Your task to perform on an android device: Go to accessibility settings Image 0: 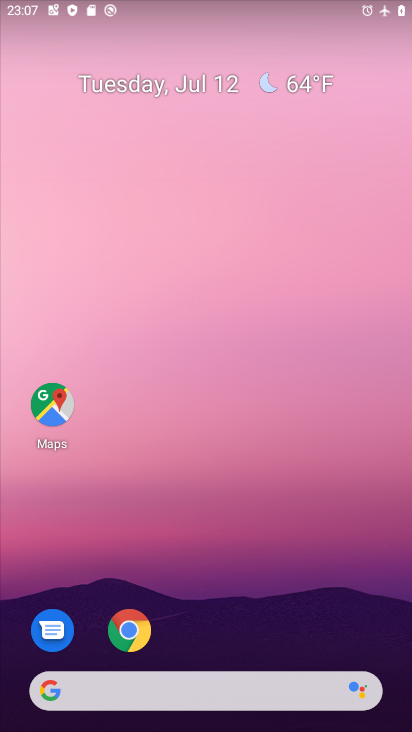
Step 0: drag from (236, 661) to (45, 730)
Your task to perform on an android device: Go to accessibility settings Image 1: 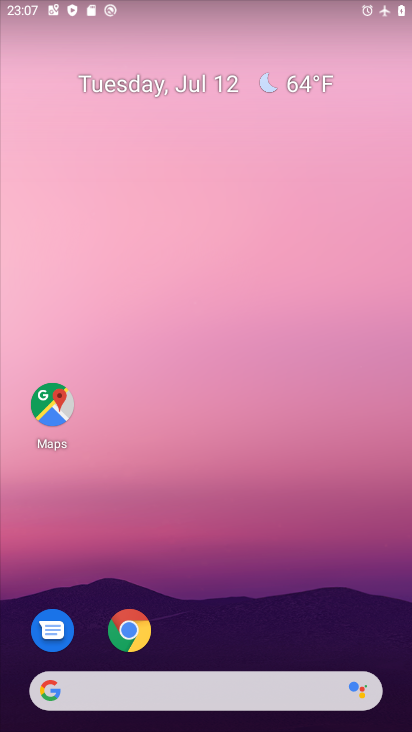
Step 1: drag from (220, 653) to (216, 26)
Your task to perform on an android device: Go to accessibility settings Image 2: 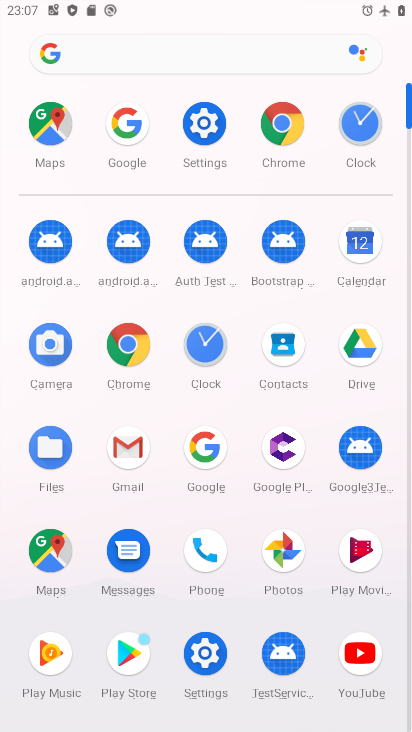
Step 2: click (208, 666)
Your task to perform on an android device: Go to accessibility settings Image 3: 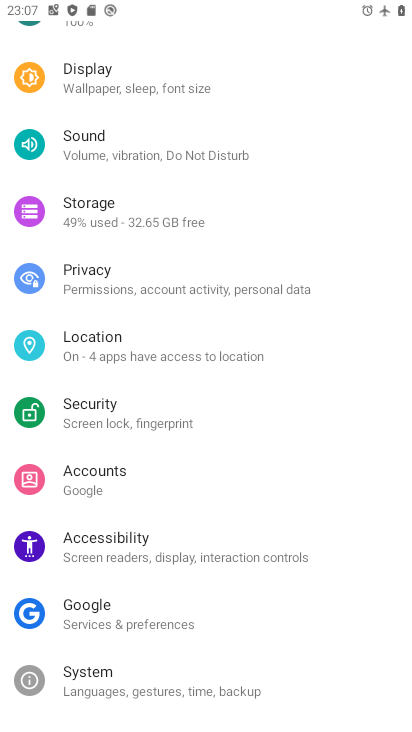
Step 3: click (193, 548)
Your task to perform on an android device: Go to accessibility settings Image 4: 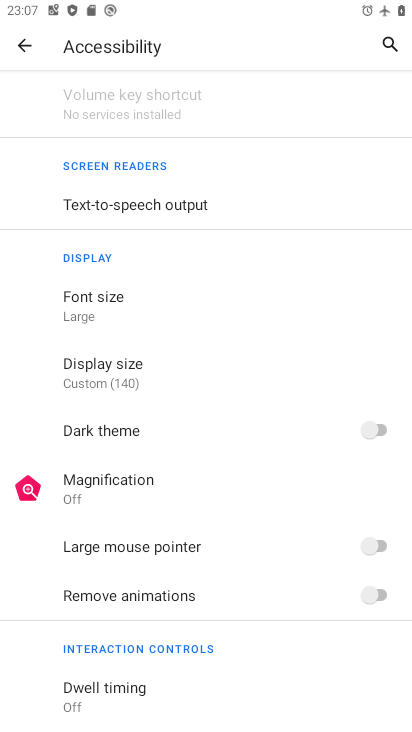
Step 4: task complete